Your task to perform on an android device: turn on wifi Image 0: 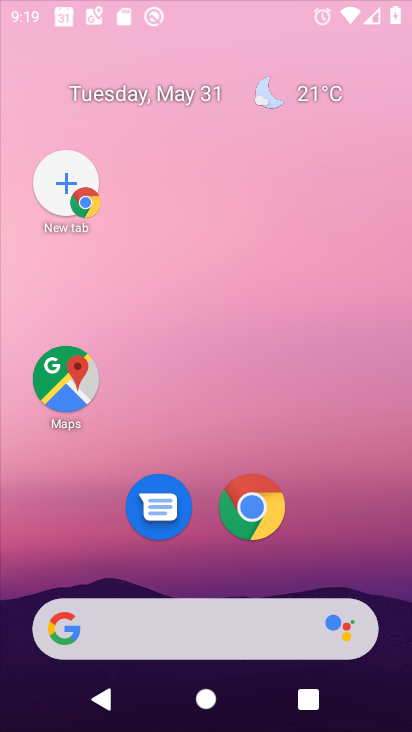
Step 0: drag from (245, 592) to (245, 96)
Your task to perform on an android device: turn on wifi Image 1: 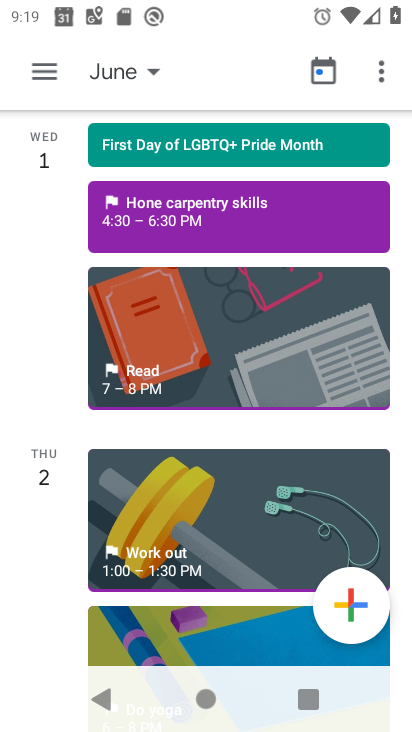
Step 1: press back button
Your task to perform on an android device: turn on wifi Image 2: 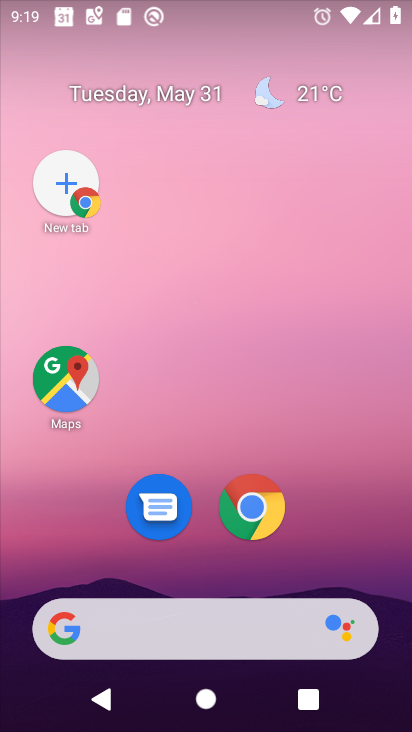
Step 2: drag from (259, 696) to (278, 141)
Your task to perform on an android device: turn on wifi Image 3: 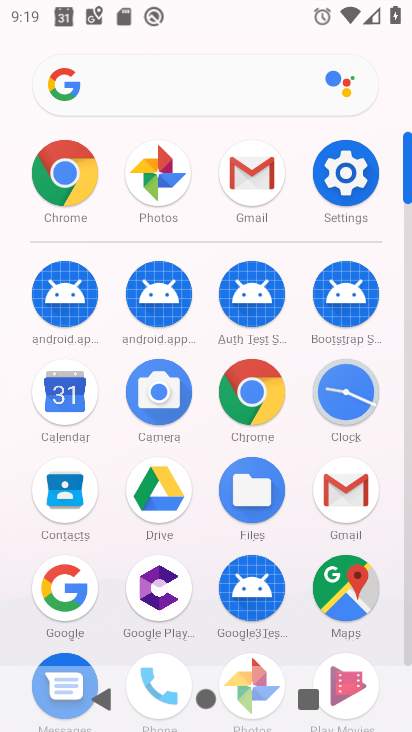
Step 3: click (346, 184)
Your task to perform on an android device: turn on wifi Image 4: 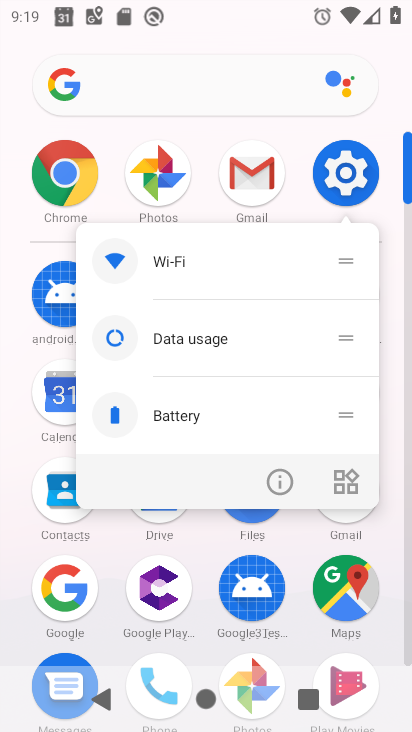
Step 4: click (325, 165)
Your task to perform on an android device: turn on wifi Image 5: 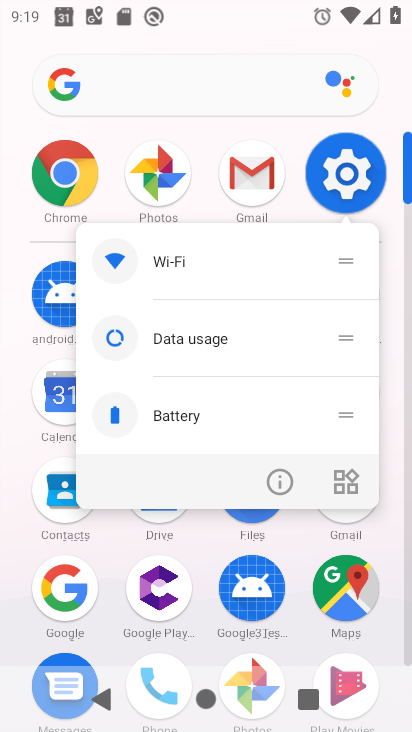
Step 5: click (325, 165)
Your task to perform on an android device: turn on wifi Image 6: 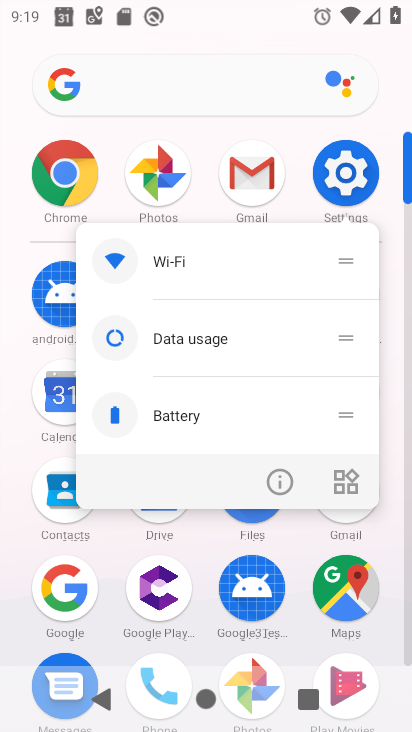
Step 6: click (334, 165)
Your task to perform on an android device: turn on wifi Image 7: 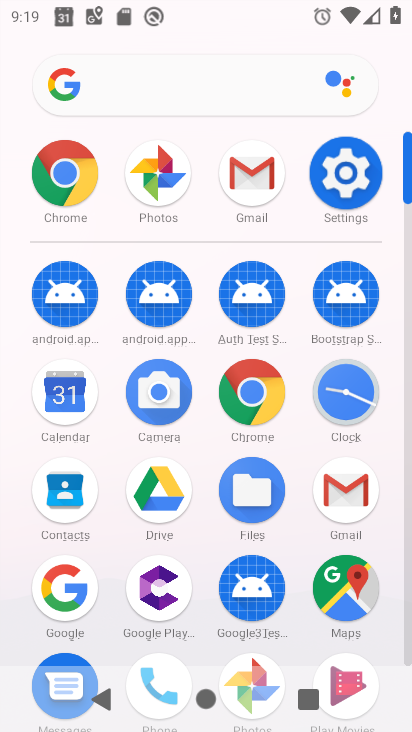
Step 7: click (334, 165)
Your task to perform on an android device: turn on wifi Image 8: 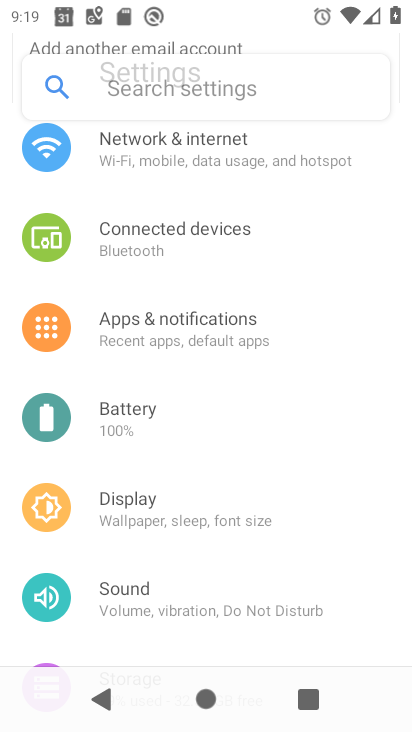
Step 8: click (337, 168)
Your task to perform on an android device: turn on wifi Image 9: 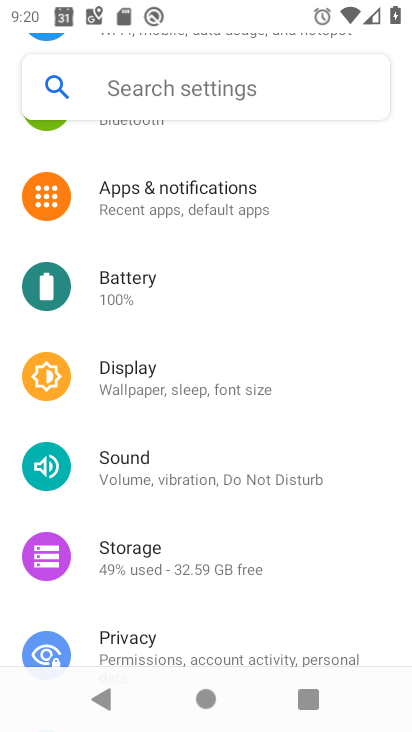
Step 9: drag from (143, 485) to (278, 647)
Your task to perform on an android device: turn on wifi Image 10: 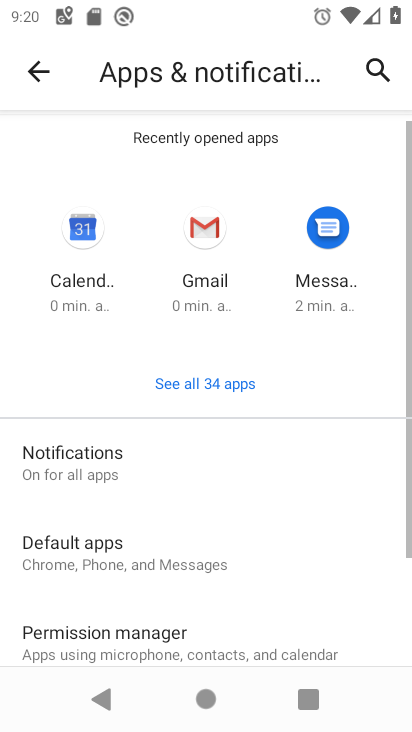
Step 10: click (36, 67)
Your task to perform on an android device: turn on wifi Image 11: 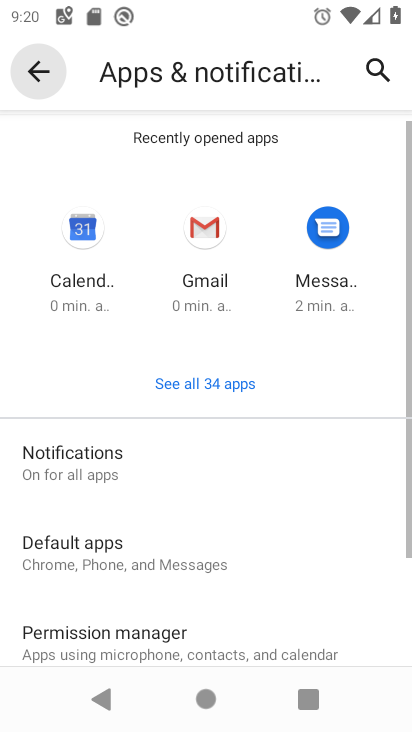
Step 11: click (35, 66)
Your task to perform on an android device: turn on wifi Image 12: 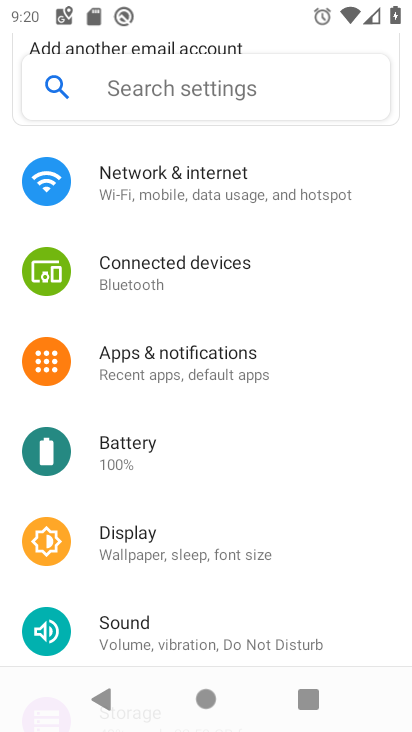
Step 12: click (214, 191)
Your task to perform on an android device: turn on wifi Image 13: 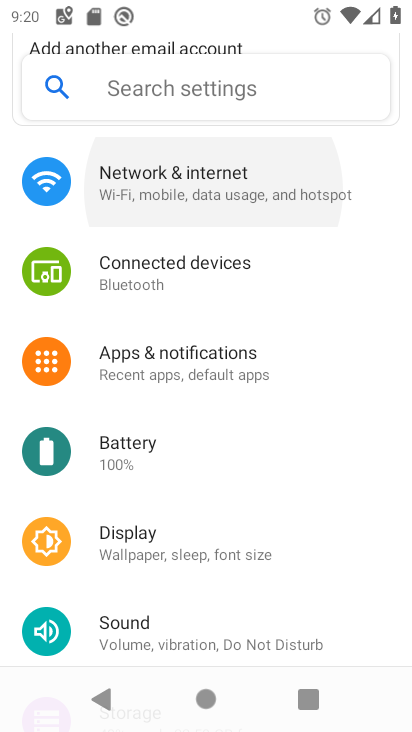
Step 13: click (213, 192)
Your task to perform on an android device: turn on wifi Image 14: 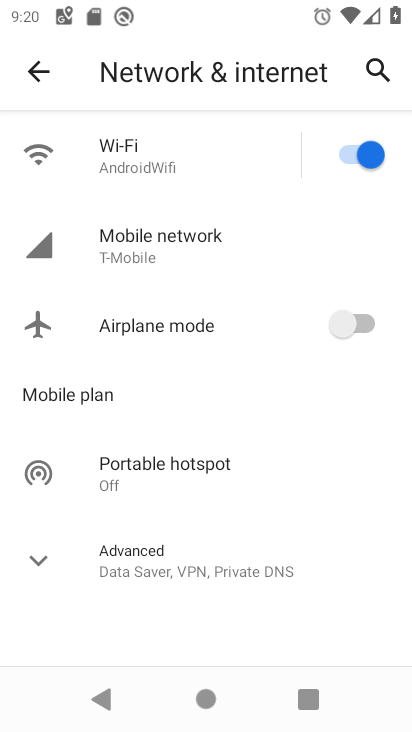
Step 14: task complete